Your task to perform on an android device: find snoozed emails in the gmail app Image 0: 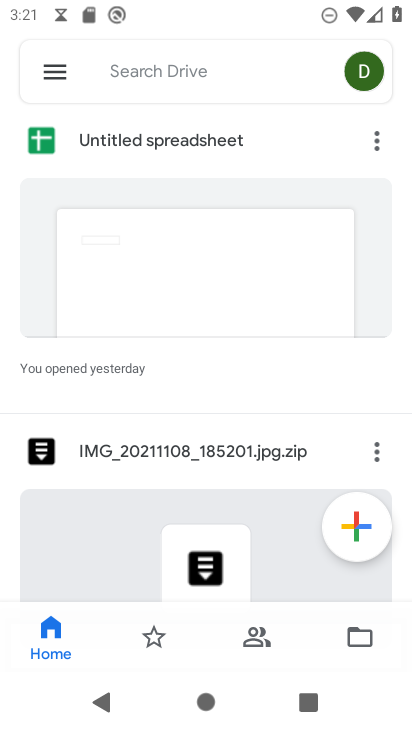
Step 0: press home button
Your task to perform on an android device: find snoozed emails in the gmail app Image 1: 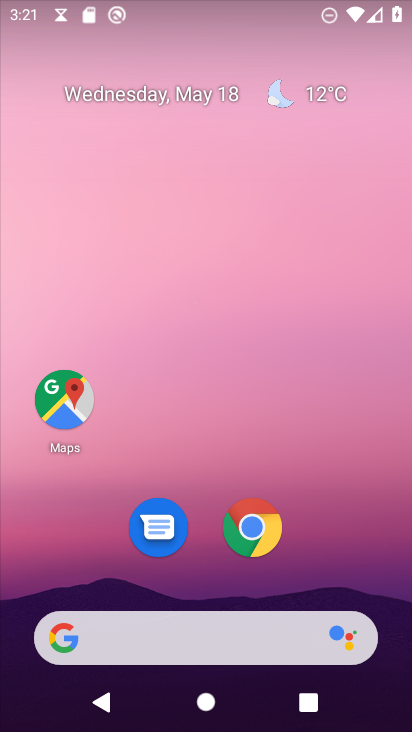
Step 1: drag from (346, 569) to (179, 66)
Your task to perform on an android device: find snoozed emails in the gmail app Image 2: 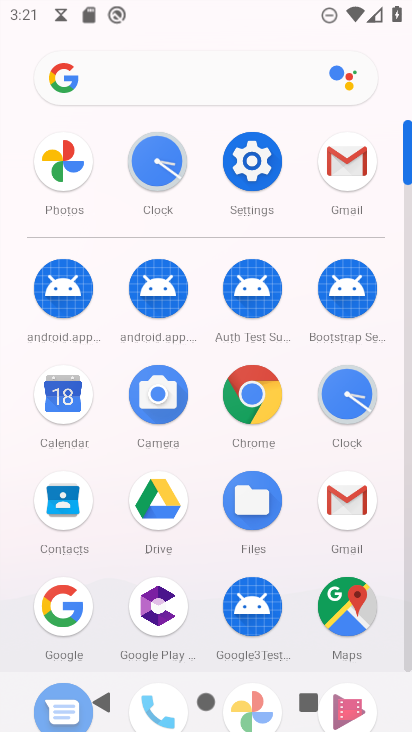
Step 2: click (351, 487)
Your task to perform on an android device: find snoozed emails in the gmail app Image 3: 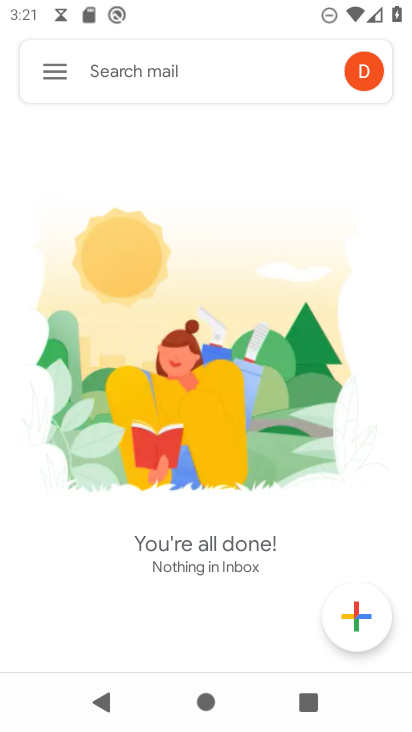
Step 3: click (48, 76)
Your task to perform on an android device: find snoozed emails in the gmail app Image 4: 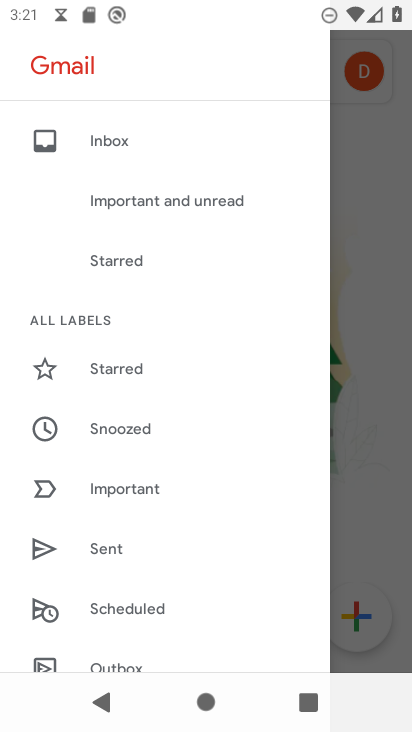
Step 4: click (141, 423)
Your task to perform on an android device: find snoozed emails in the gmail app Image 5: 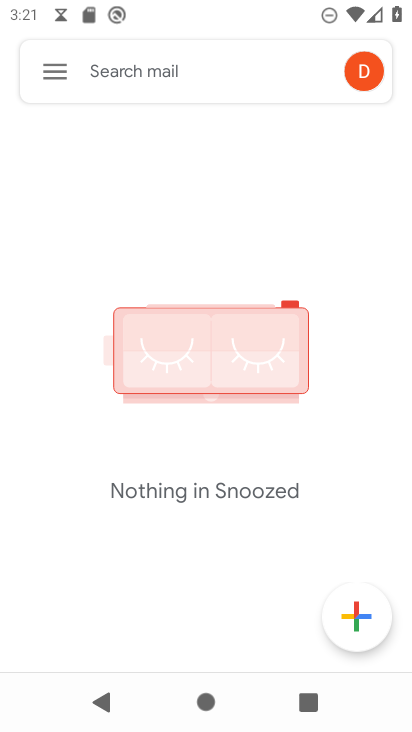
Step 5: task complete